Your task to perform on an android device: find which apps use the phone's location Image 0: 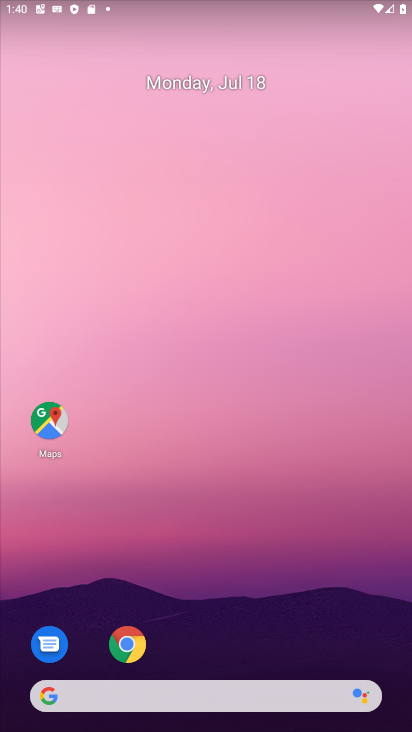
Step 0: drag from (363, 656) to (289, 10)
Your task to perform on an android device: find which apps use the phone's location Image 1: 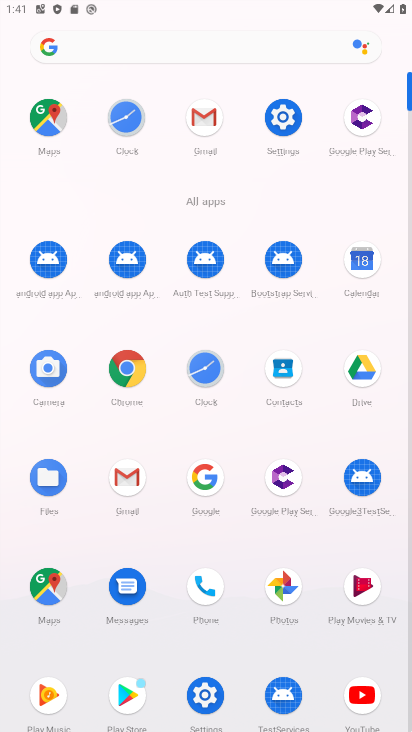
Step 1: click (201, 696)
Your task to perform on an android device: find which apps use the phone's location Image 2: 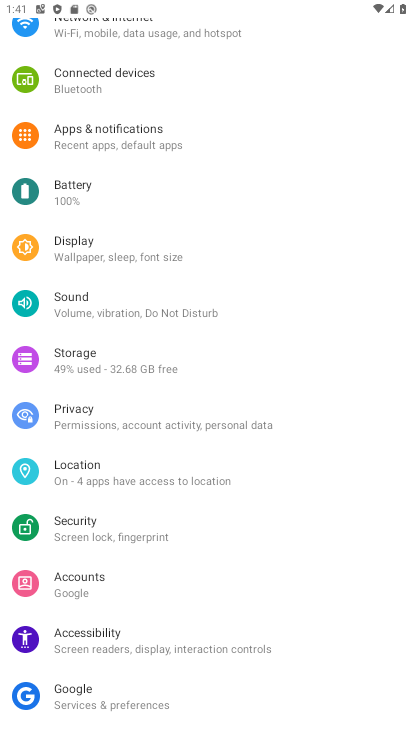
Step 2: click (135, 475)
Your task to perform on an android device: find which apps use the phone's location Image 3: 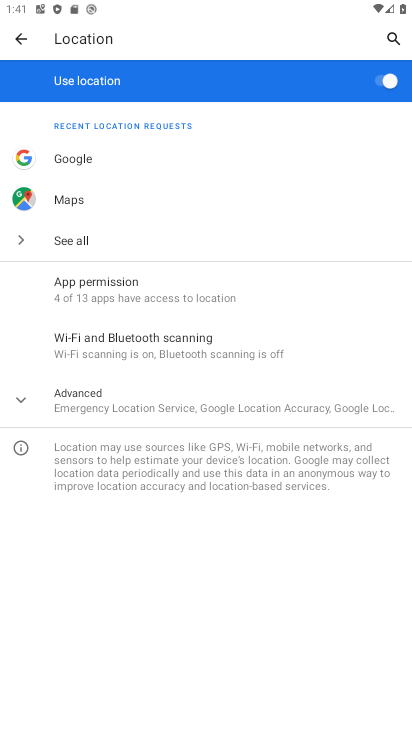
Step 3: click (103, 278)
Your task to perform on an android device: find which apps use the phone's location Image 4: 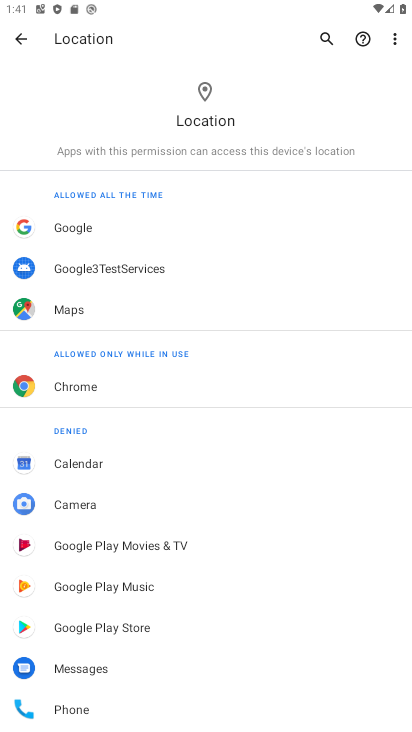
Step 4: task complete